Your task to perform on an android device: Turn on the flashlight Image 0: 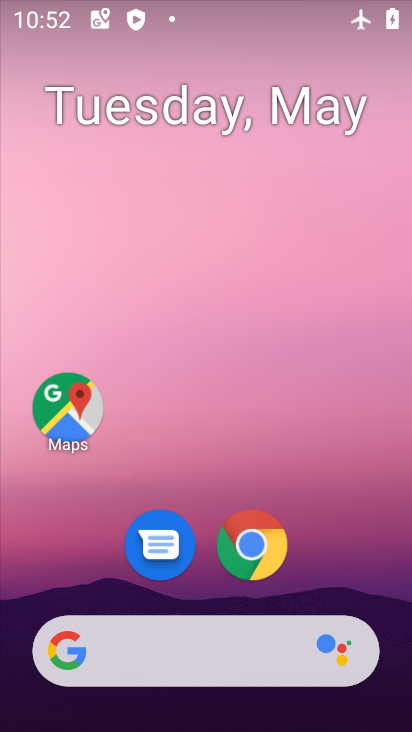
Step 0: press home button
Your task to perform on an android device: Turn on the flashlight Image 1: 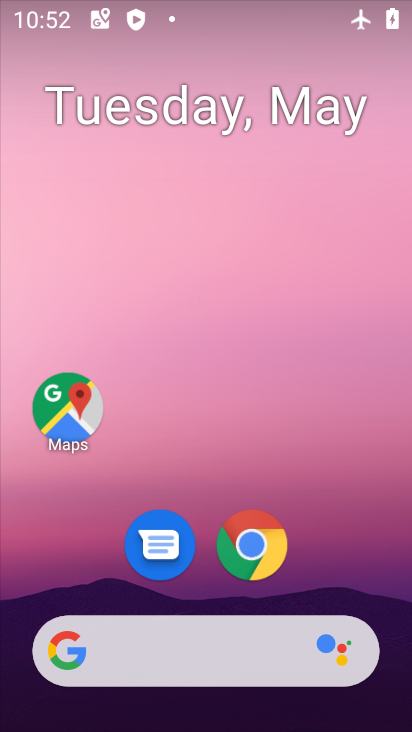
Step 1: click (275, 552)
Your task to perform on an android device: Turn on the flashlight Image 2: 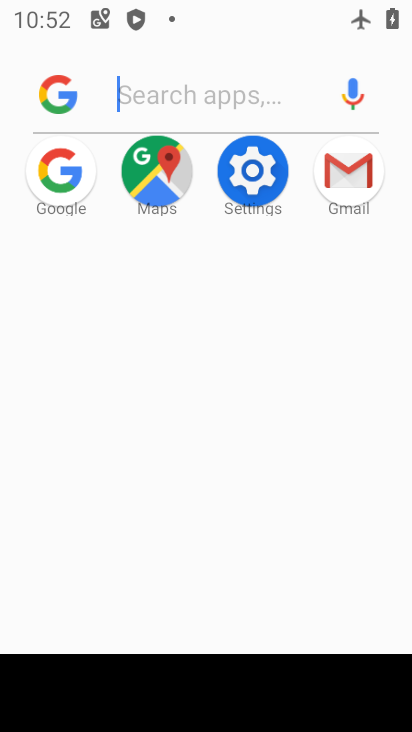
Step 2: task complete